Your task to perform on an android device: stop showing notifications on the lock screen Image 0: 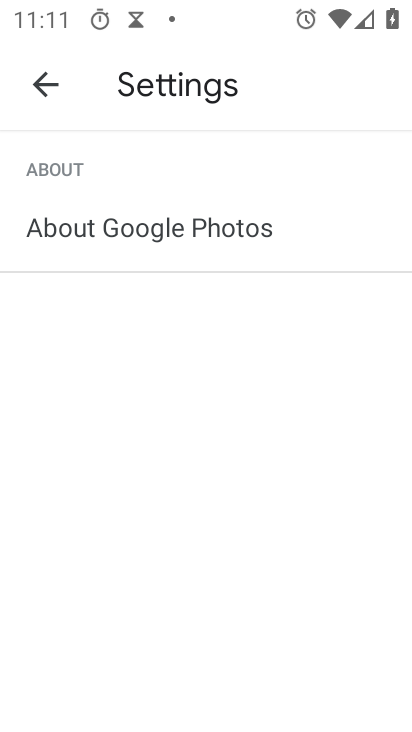
Step 0: press home button
Your task to perform on an android device: stop showing notifications on the lock screen Image 1: 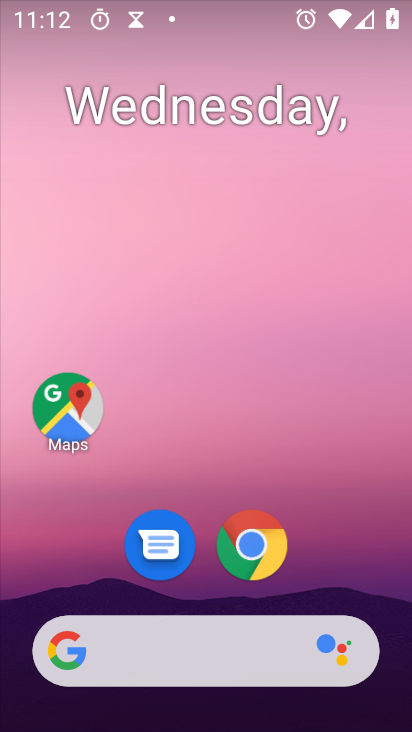
Step 1: drag from (179, 632) to (240, 74)
Your task to perform on an android device: stop showing notifications on the lock screen Image 2: 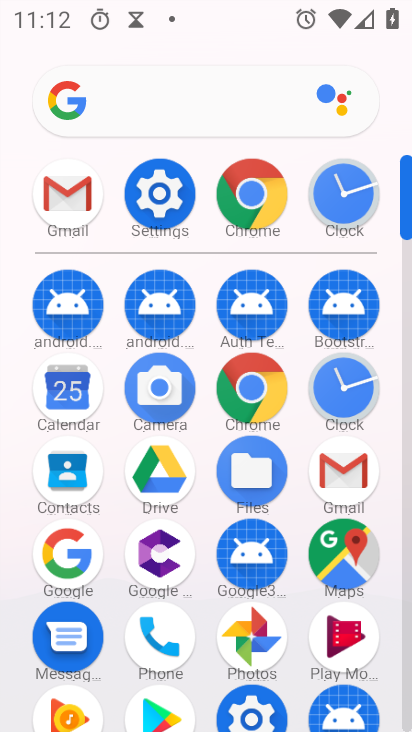
Step 2: click (163, 200)
Your task to perform on an android device: stop showing notifications on the lock screen Image 3: 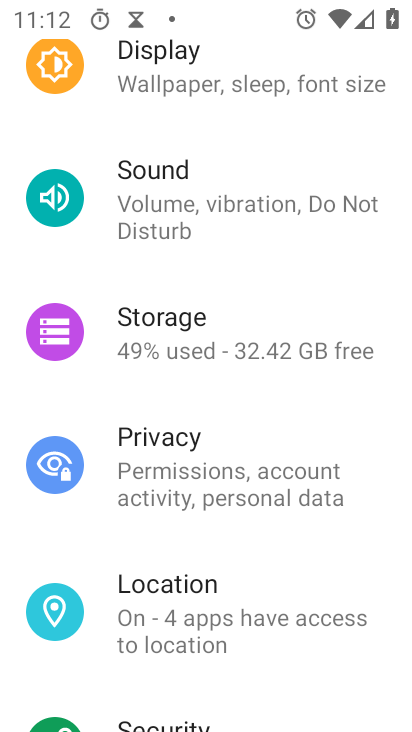
Step 3: drag from (269, 158) to (260, 666)
Your task to perform on an android device: stop showing notifications on the lock screen Image 4: 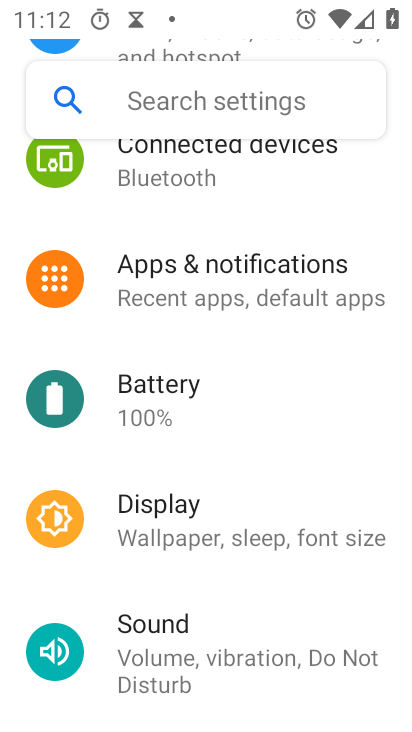
Step 4: click (235, 291)
Your task to perform on an android device: stop showing notifications on the lock screen Image 5: 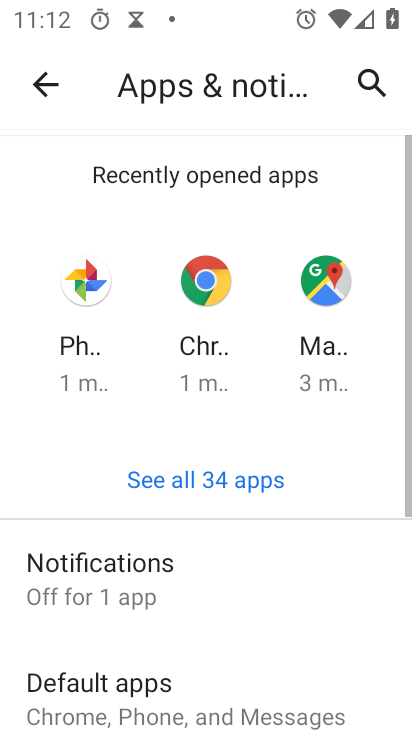
Step 5: click (123, 586)
Your task to perform on an android device: stop showing notifications on the lock screen Image 6: 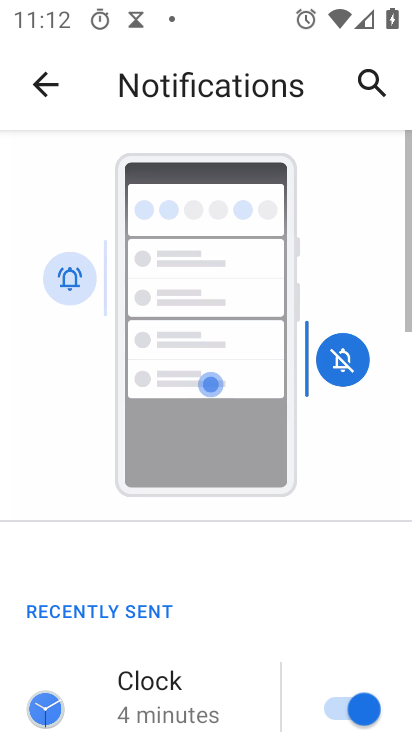
Step 6: drag from (222, 630) to (233, 223)
Your task to perform on an android device: stop showing notifications on the lock screen Image 7: 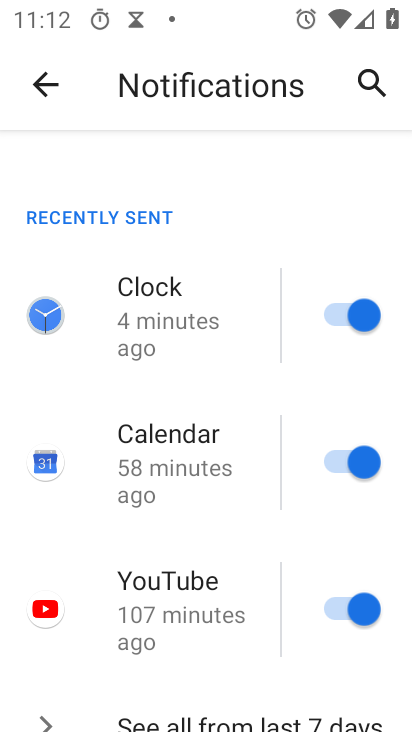
Step 7: drag from (228, 568) to (334, 63)
Your task to perform on an android device: stop showing notifications on the lock screen Image 8: 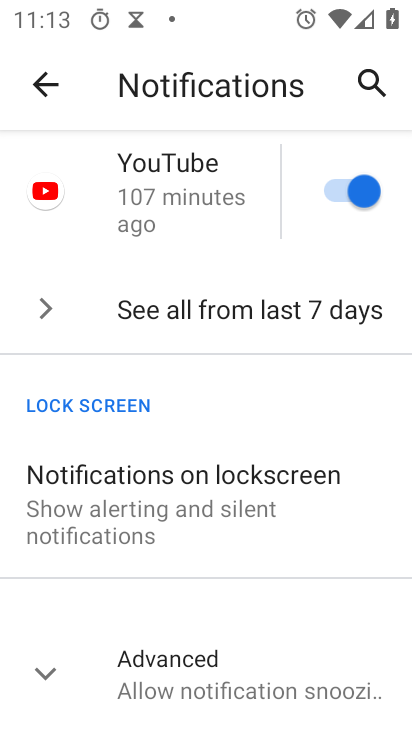
Step 8: click (181, 477)
Your task to perform on an android device: stop showing notifications on the lock screen Image 9: 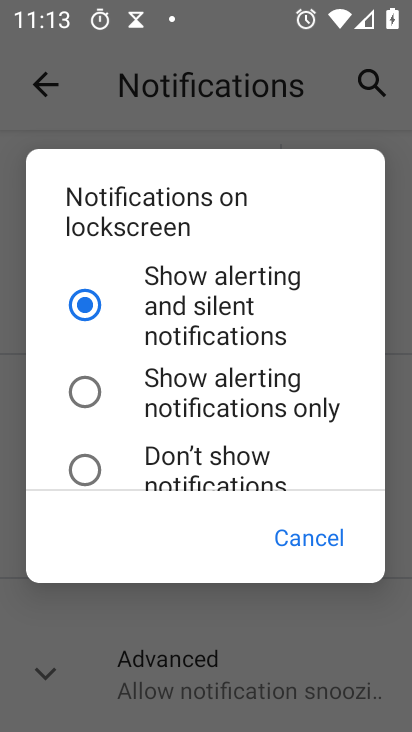
Step 9: click (77, 469)
Your task to perform on an android device: stop showing notifications on the lock screen Image 10: 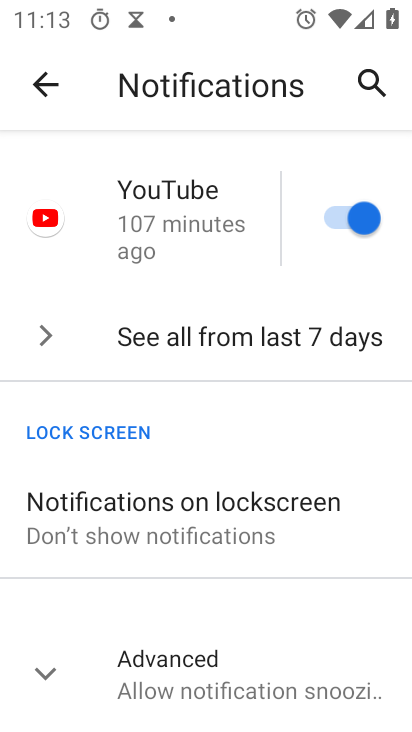
Step 10: task complete